Your task to perform on an android device: check google app version Image 0: 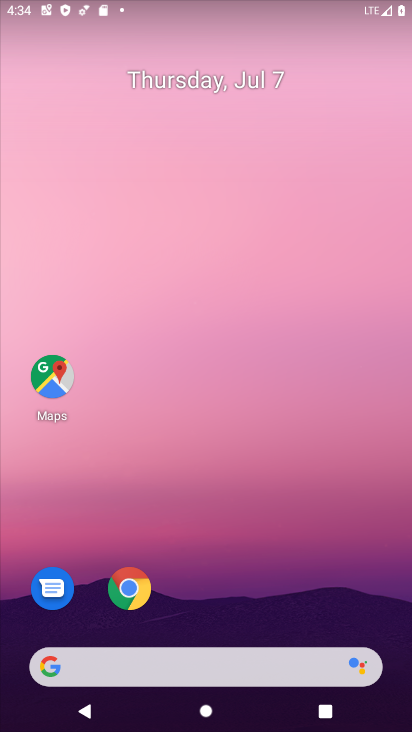
Step 0: drag from (313, 625) to (309, 46)
Your task to perform on an android device: check google app version Image 1: 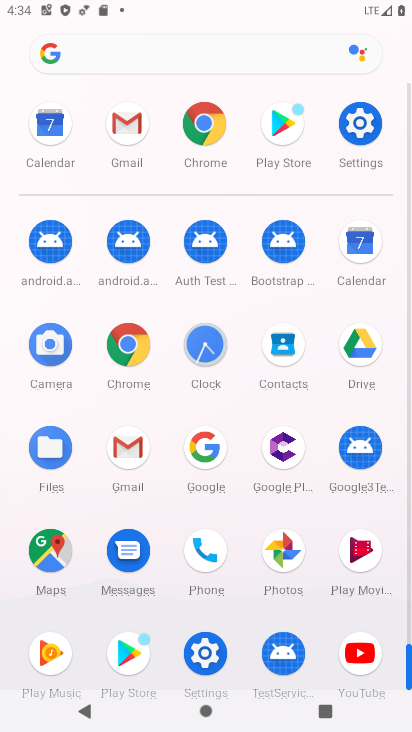
Step 1: click (200, 452)
Your task to perform on an android device: check google app version Image 2: 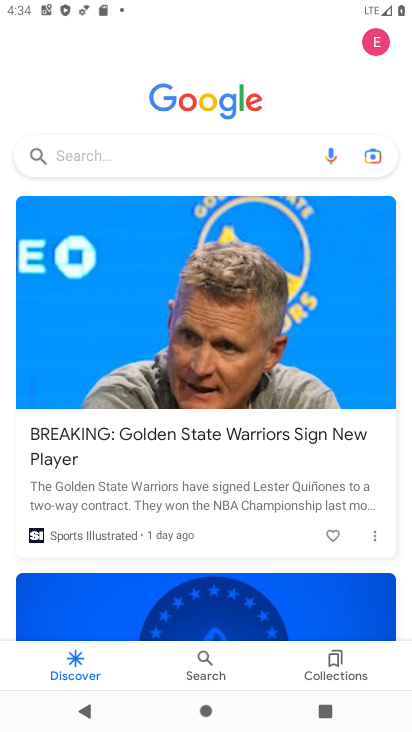
Step 2: click (375, 46)
Your task to perform on an android device: check google app version Image 3: 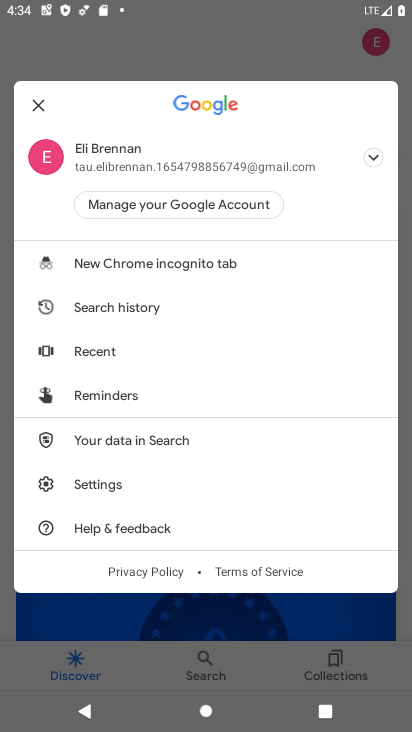
Step 3: click (172, 520)
Your task to perform on an android device: check google app version Image 4: 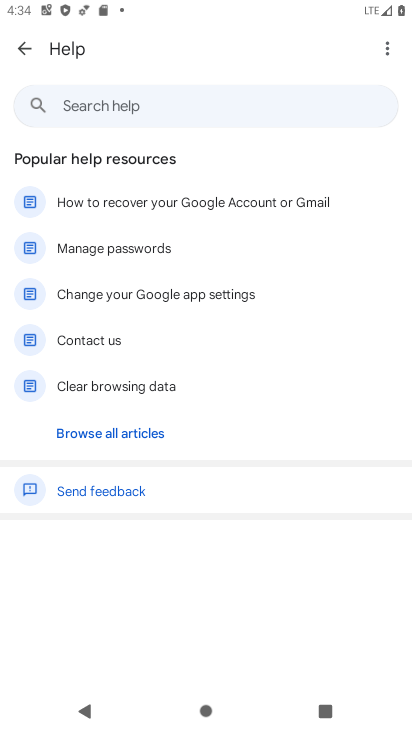
Step 4: click (390, 49)
Your task to perform on an android device: check google app version Image 5: 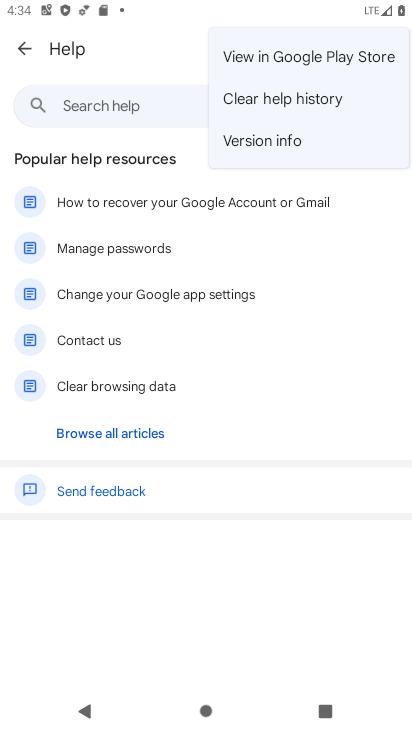
Step 5: click (335, 139)
Your task to perform on an android device: check google app version Image 6: 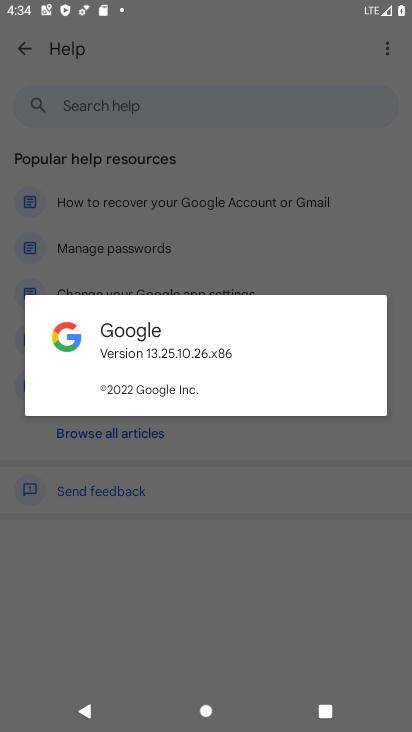
Step 6: task complete